Your task to perform on an android device: set an alarm Image 0: 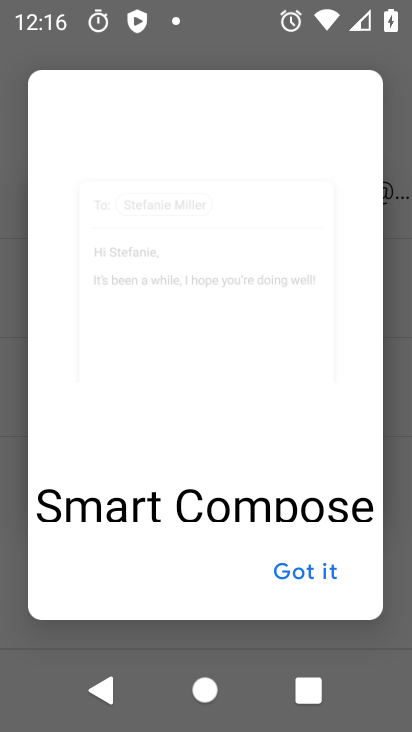
Step 0: press home button
Your task to perform on an android device: set an alarm Image 1: 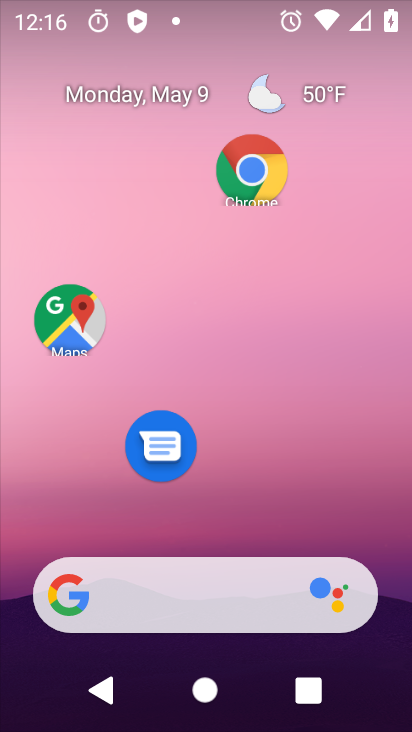
Step 1: drag from (271, 520) to (293, 61)
Your task to perform on an android device: set an alarm Image 2: 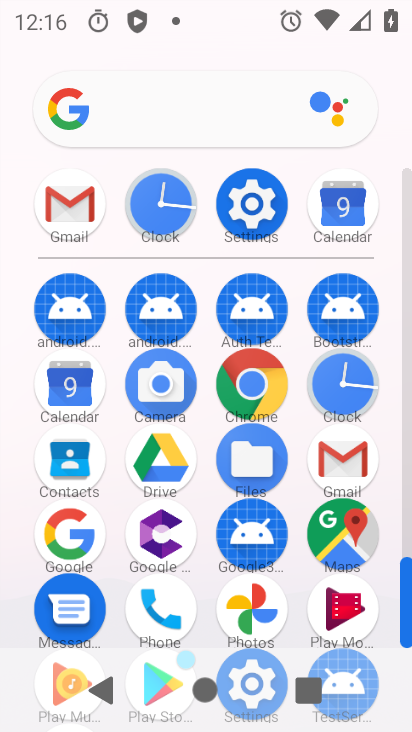
Step 2: click (336, 367)
Your task to perform on an android device: set an alarm Image 3: 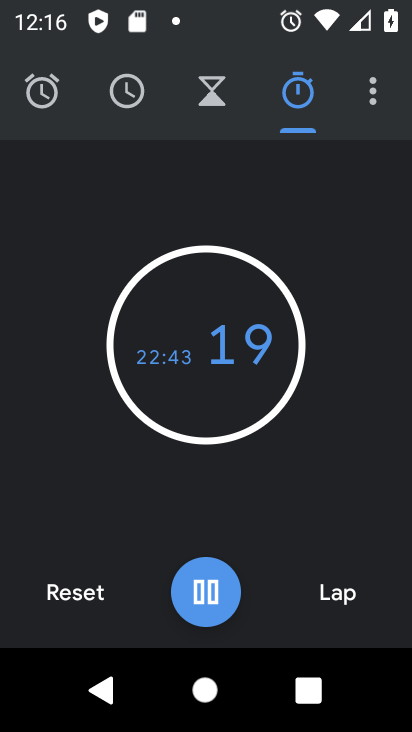
Step 3: click (39, 82)
Your task to perform on an android device: set an alarm Image 4: 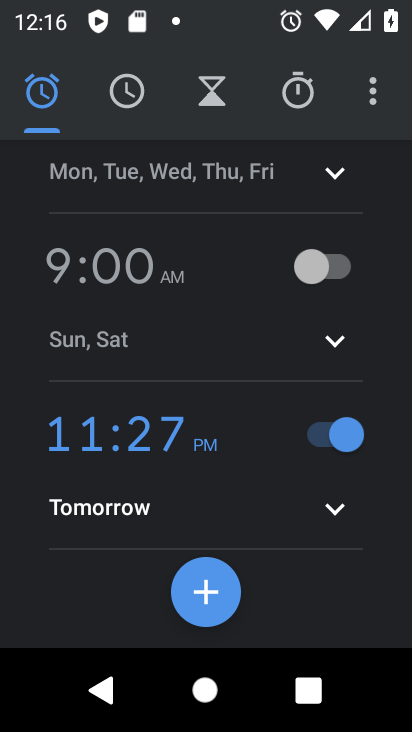
Step 4: click (197, 601)
Your task to perform on an android device: set an alarm Image 5: 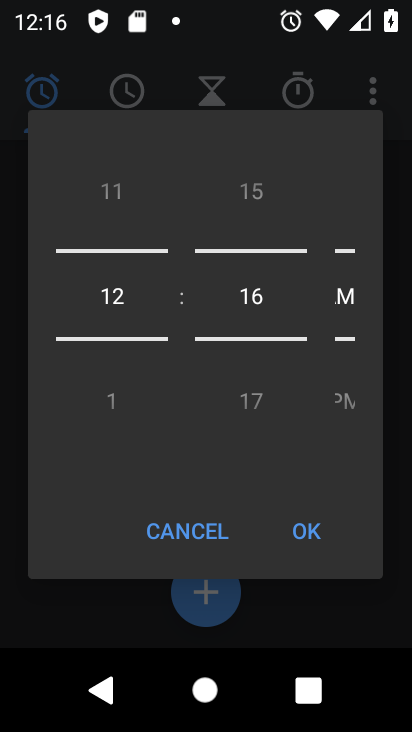
Step 5: click (313, 518)
Your task to perform on an android device: set an alarm Image 6: 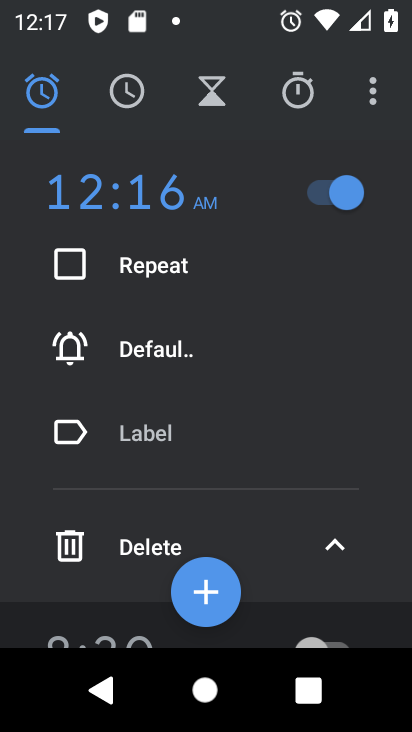
Step 6: click (327, 534)
Your task to perform on an android device: set an alarm Image 7: 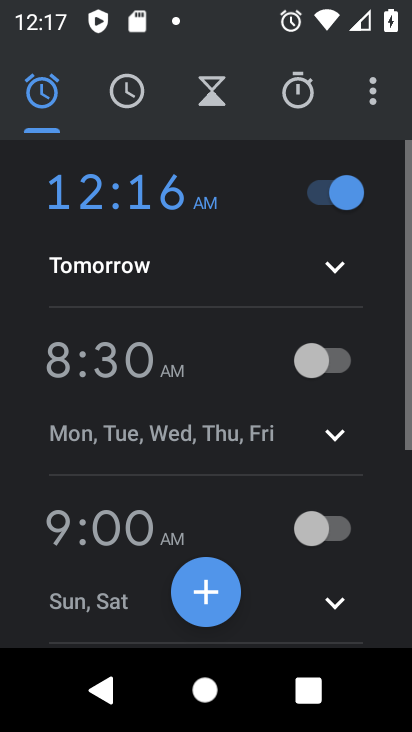
Step 7: task complete